Your task to perform on an android device: turn off notifications settings in the gmail app Image 0: 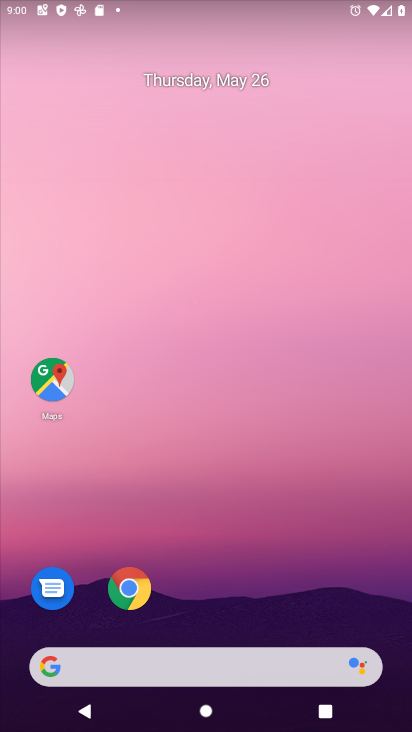
Step 0: drag from (392, 616) to (224, 24)
Your task to perform on an android device: turn off notifications settings in the gmail app Image 1: 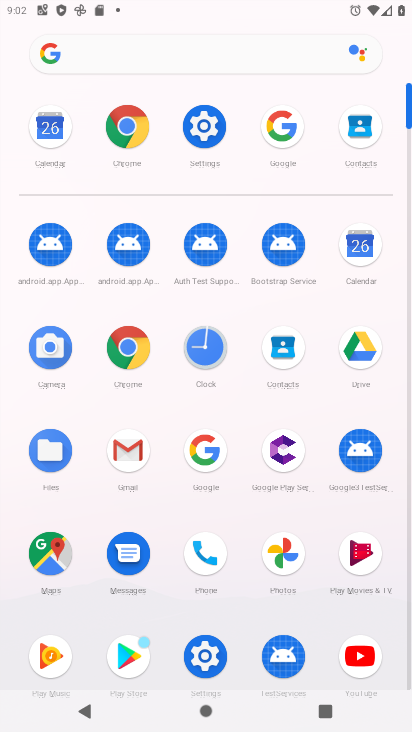
Step 1: click (118, 455)
Your task to perform on an android device: turn off notifications settings in the gmail app Image 2: 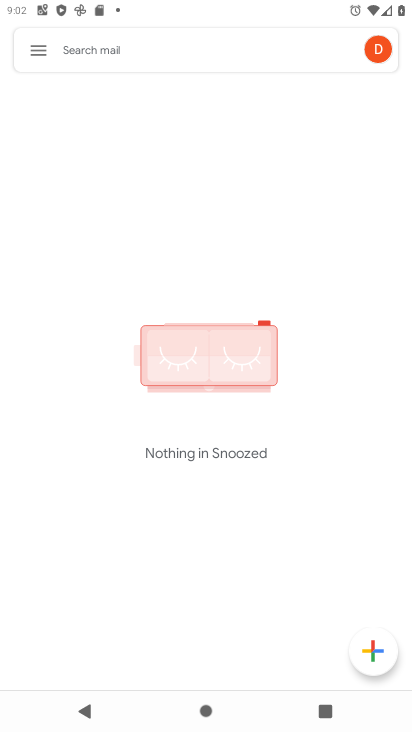
Step 2: click (40, 57)
Your task to perform on an android device: turn off notifications settings in the gmail app Image 3: 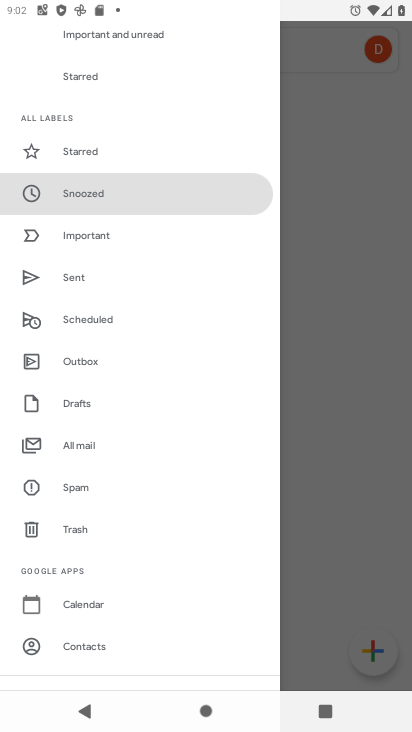
Step 3: drag from (104, 624) to (131, 133)
Your task to perform on an android device: turn off notifications settings in the gmail app Image 4: 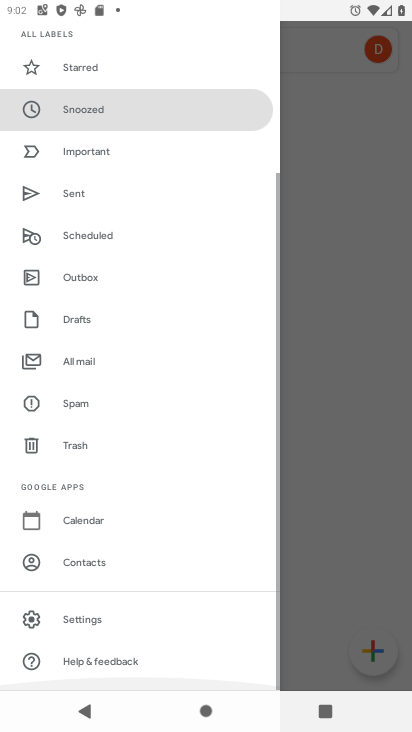
Step 4: click (64, 619)
Your task to perform on an android device: turn off notifications settings in the gmail app Image 5: 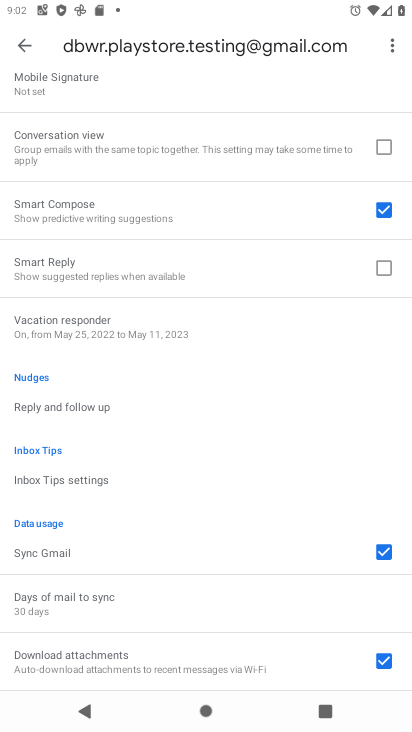
Step 5: drag from (134, 172) to (180, 680)
Your task to perform on an android device: turn off notifications settings in the gmail app Image 6: 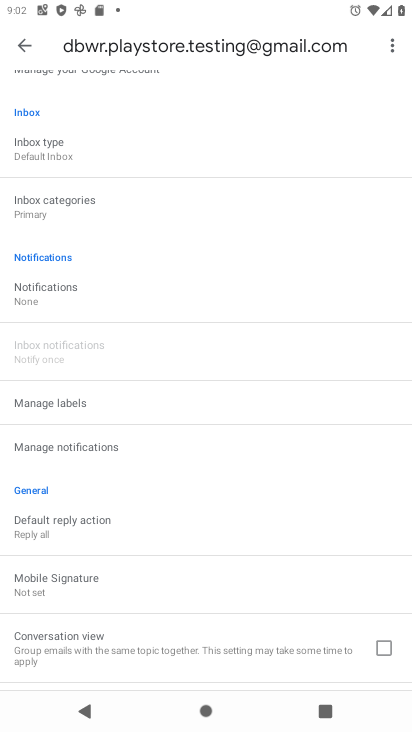
Step 6: click (89, 297)
Your task to perform on an android device: turn off notifications settings in the gmail app Image 7: 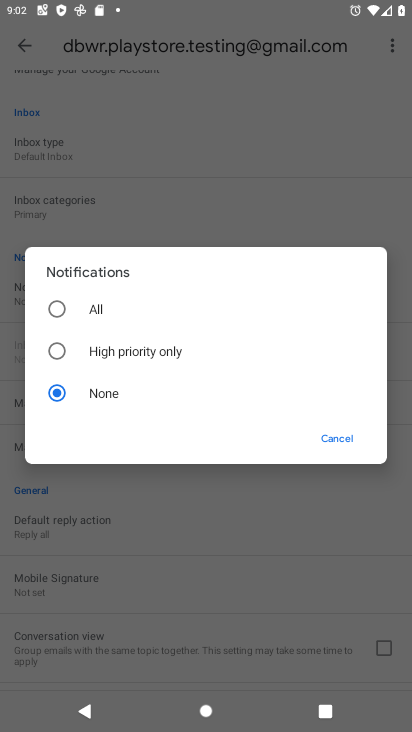
Step 7: task complete